Your task to perform on an android device: turn on location history Image 0: 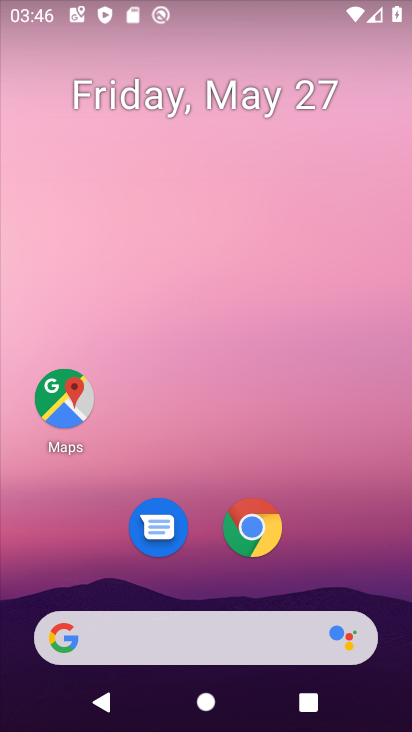
Step 0: click (54, 406)
Your task to perform on an android device: turn on location history Image 1: 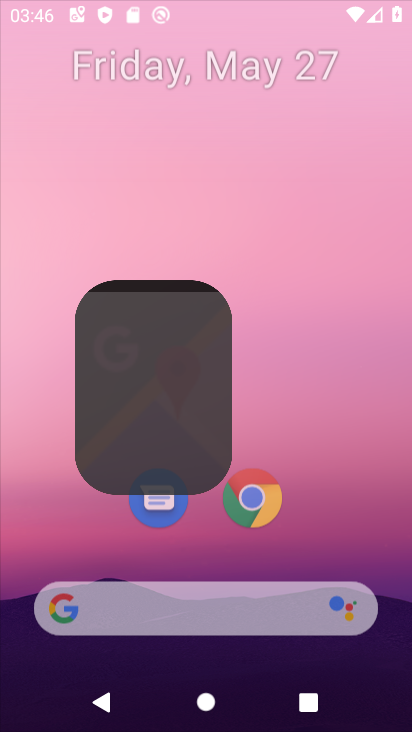
Step 1: click (54, 406)
Your task to perform on an android device: turn on location history Image 2: 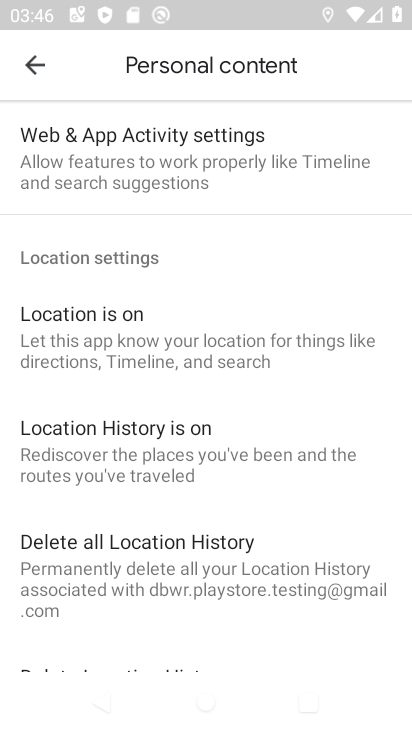
Step 2: click (35, 65)
Your task to perform on an android device: turn on location history Image 3: 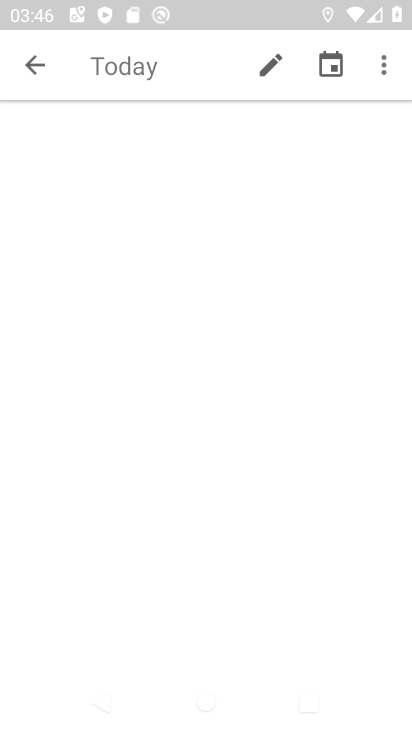
Step 3: click (35, 65)
Your task to perform on an android device: turn on location history Image 4: 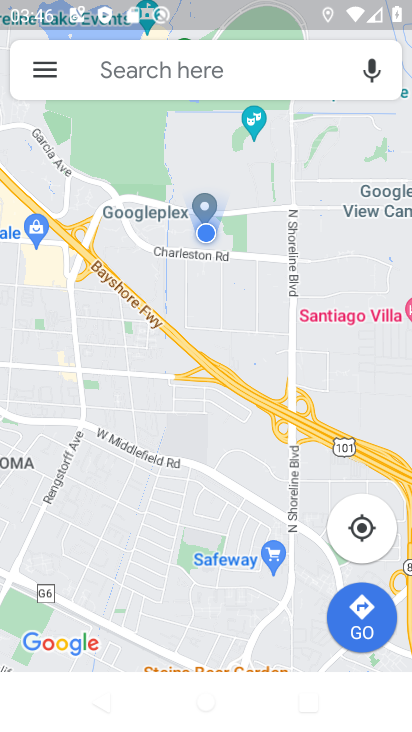
Step 4: click (33, 79)
Your task to perform on an android device: turn on location history Image 5: 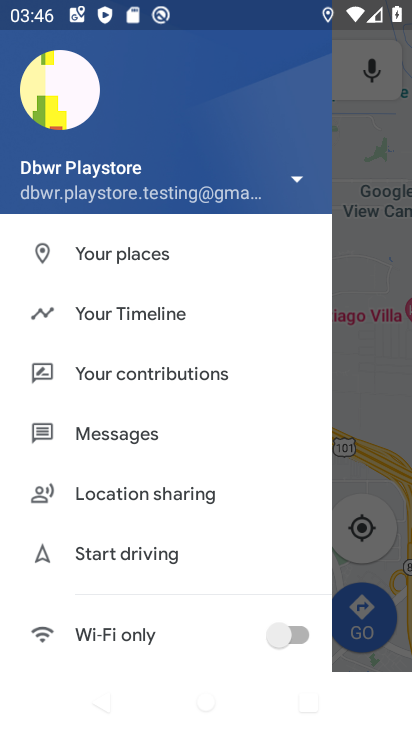
Step 5: drag from (117, 431) to (89, 10)
Your task to perform on an android device: turn on location history Image 6: 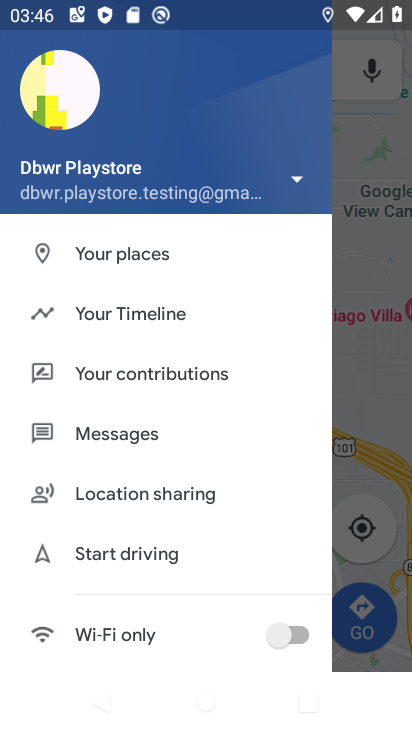
Step 6: drag from (159, 597) to (173, 454)
Your task to perform on an android device: turn on location history Image 7: 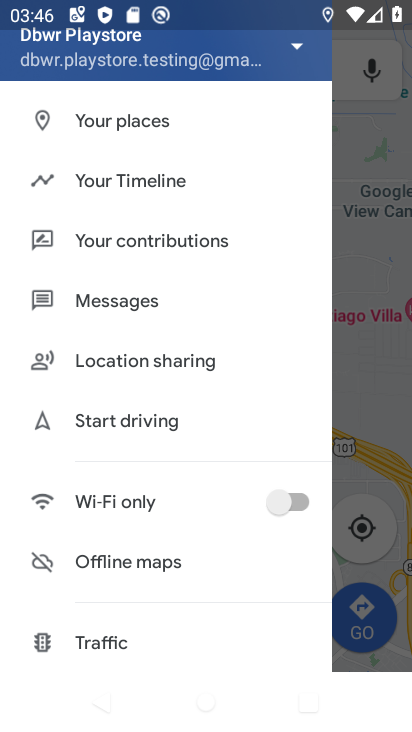
Step 7: drag from (175, 623) to (191, 511)
Your task to perform on an android device: turn on location history Image 8: 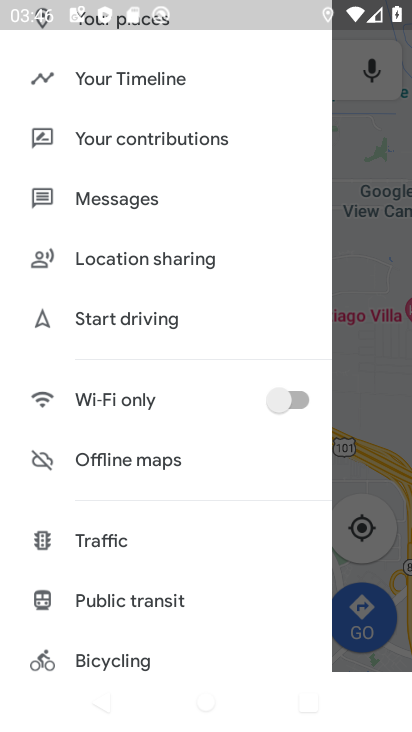
Step 8: click (130, 82)
Your task to perform on an android device: turn on location history Image 9: 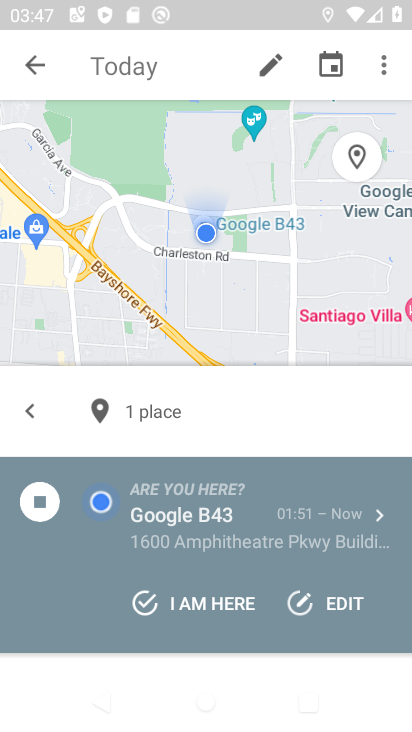
Step 9: click (388, 57)
Your task to perform on an android device: turn on location history Image 10: 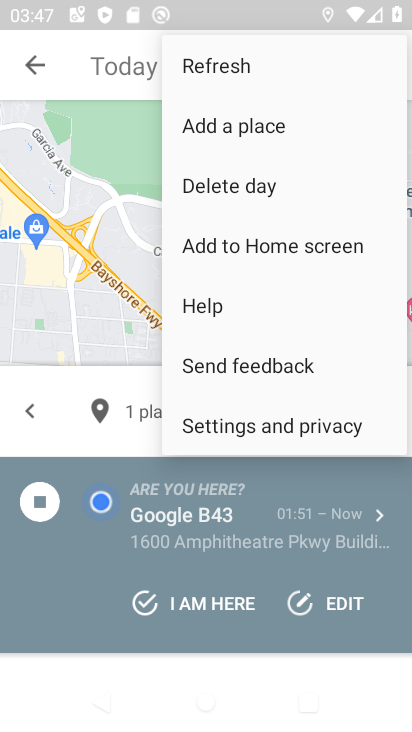
Step 10: click (212, 424)
Your task to perform on an android device: turn on location history Image 11: 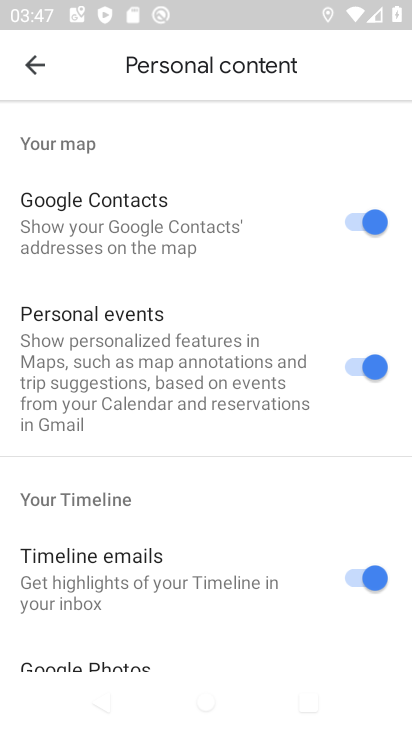
Step 11: drag from (145, 408) to (106, 162)
Your task to perform on an android device: turn on location history Image 12: 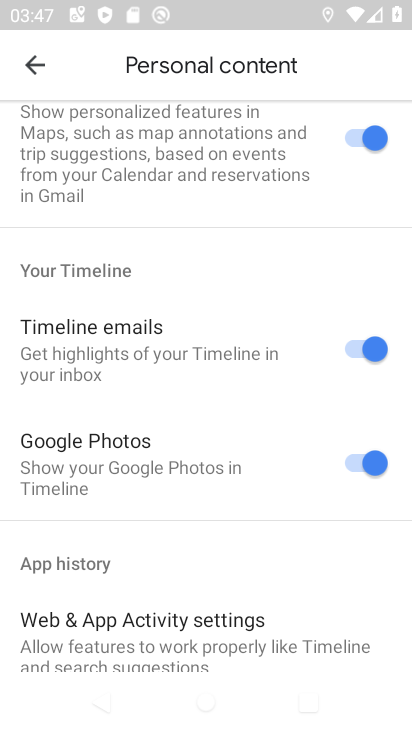
Step 12: drag from (152, 471) to (126, 205)
Your task to perform on an android device: turn on location history Image 13: 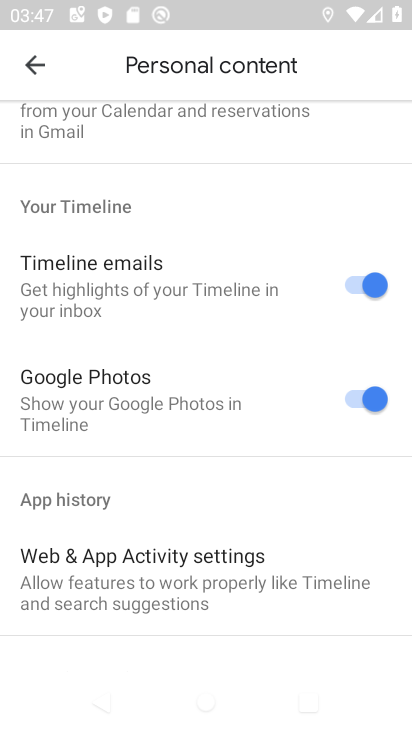
Step 13: drag from (176, 498) to (162, 224)
Your task to perform on an android device: turn on location history Image 14: 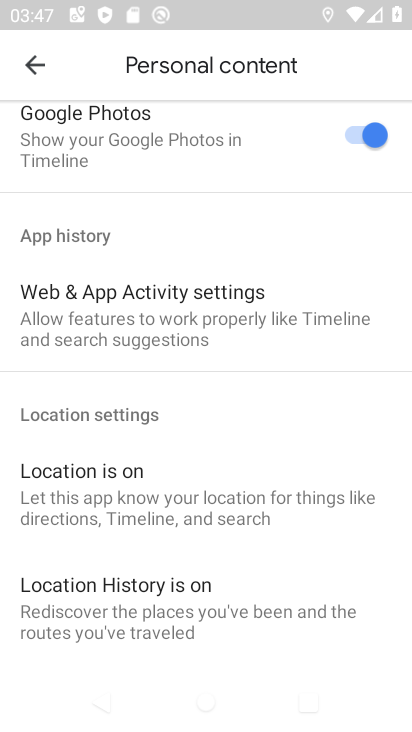
Step 14: drag from (128, 401) to (113, 279)
Your task to perform on an android device: turn on location history Image 15: 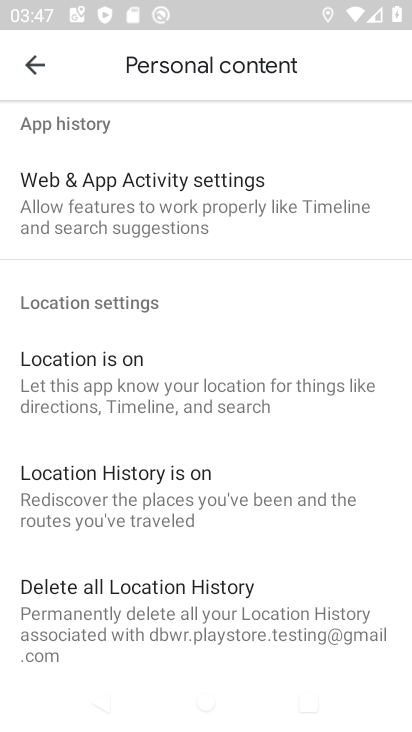
Step 15: drag from (177, 571) to (142, 431)
Your task to perform on an android device: turn on location history Image 16: 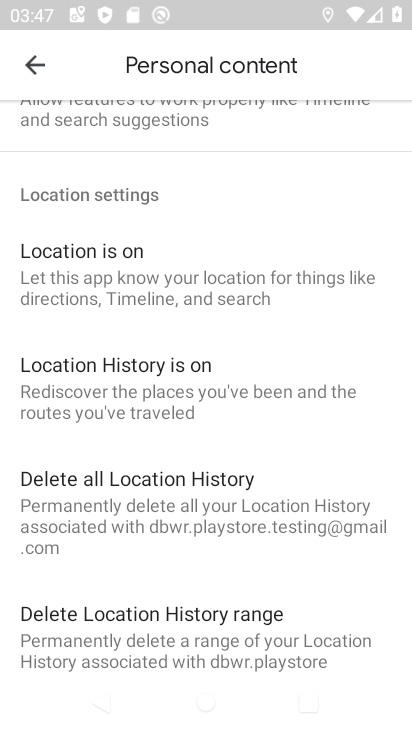
Step 16: click (132, 407)
Your task to perform on an android device: turn on location history Image 17: 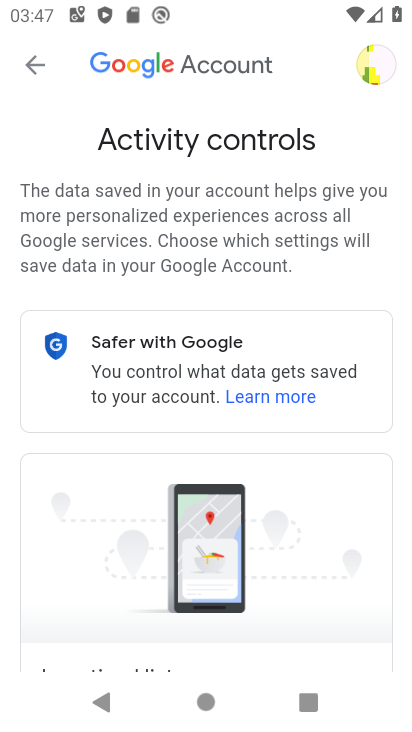
Step 17: task complete